Your task to perform on an android device: Go to Google maps Image 0: 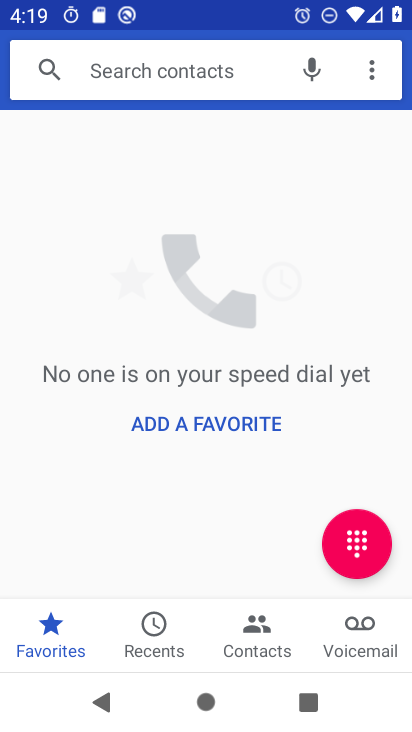
Step 0: press home button
Your task to perform on an android device: Go to Google maps Image 1: 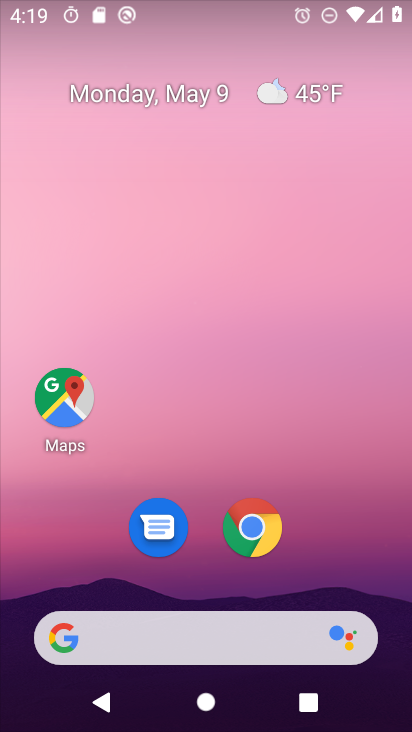
Step 1: click (56, 397)
Your task to perform on an android device: Go to Google maps Image 2: 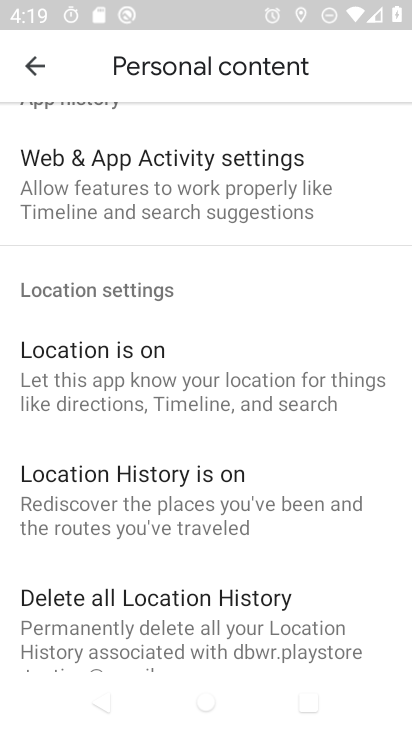
Step 2: click (22, 59)
Your task to perform on an android device: Go to Google maps Image 3: 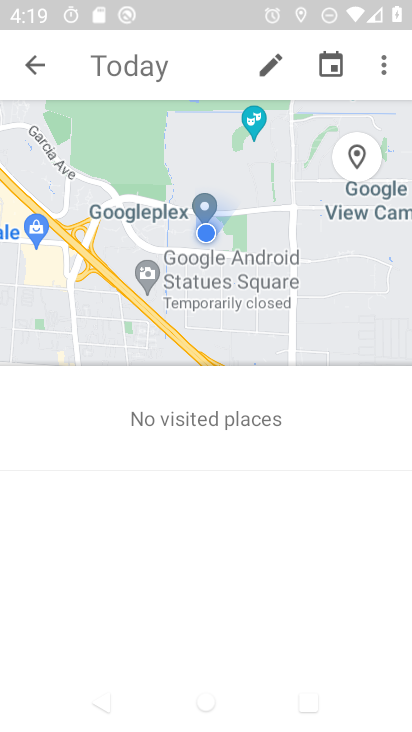
Step 3: click (36, 58)
Your task to perform on an android device: Go to Google maps Image 4: 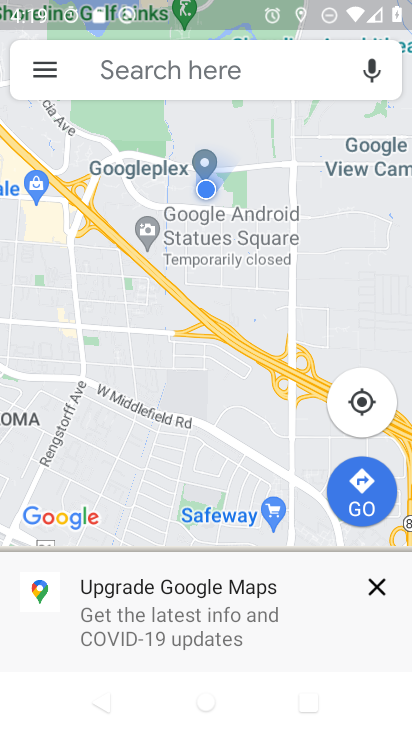
Step 4: task complete